Your task to perform on an android device: open sync settings in chrome Image 0: 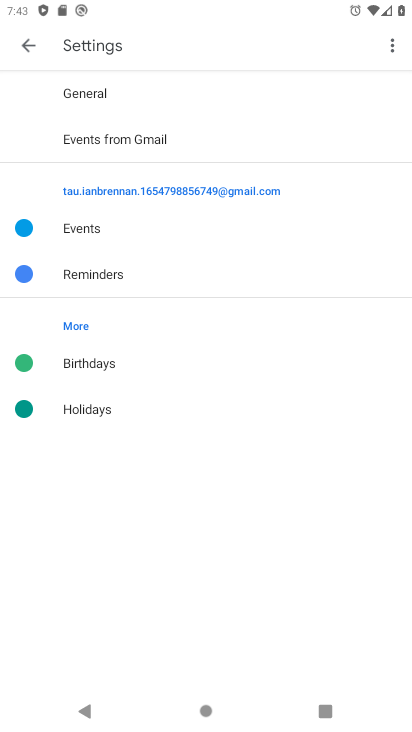
Step 0: press home button
Your task to perform on an android device: open sync settings in chrome Image 1: 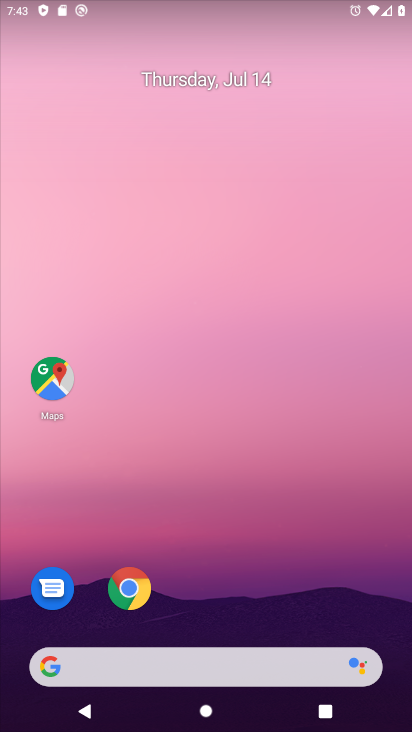
Step 1: click (91, 665)
Your task to perform on an android device: open sync settings in chrome Image 2: 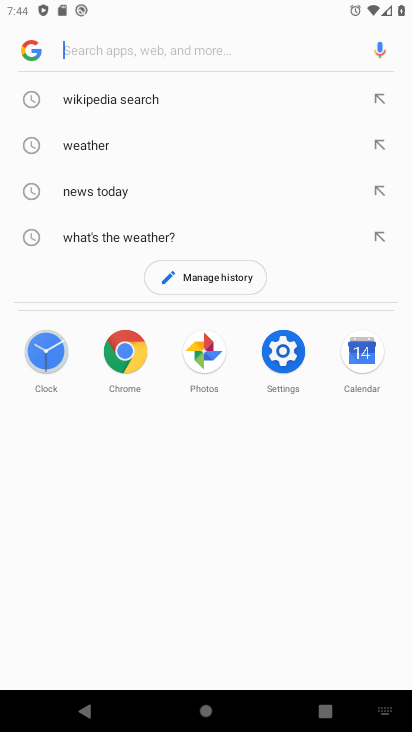
Step 2: click (131, 347)
Your task to perform on an android device: open sync settings in chrome Image 3: 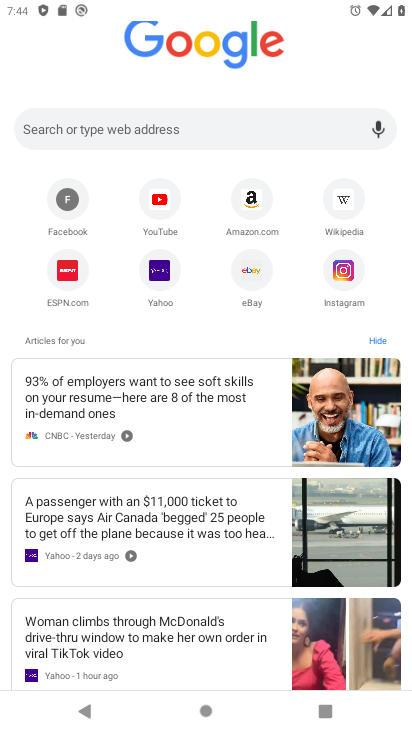
Step 3: click (396, 302)
Your task to perform on an android device: open sync settings in chrome Image 4: 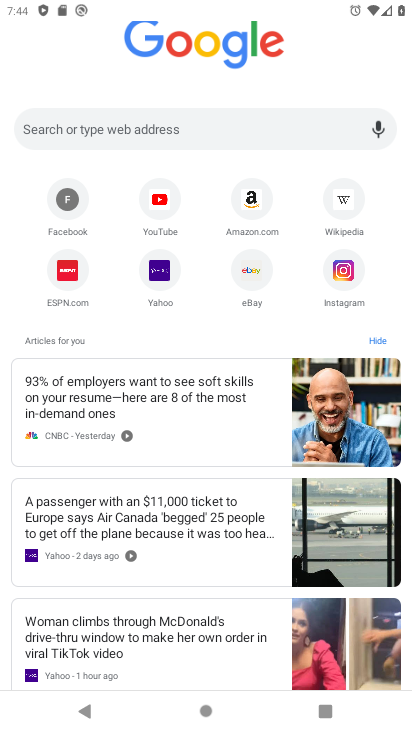
Step 4: click (76, 128)
Your task to perform on an android device: open sync settings in chrome Image 5: 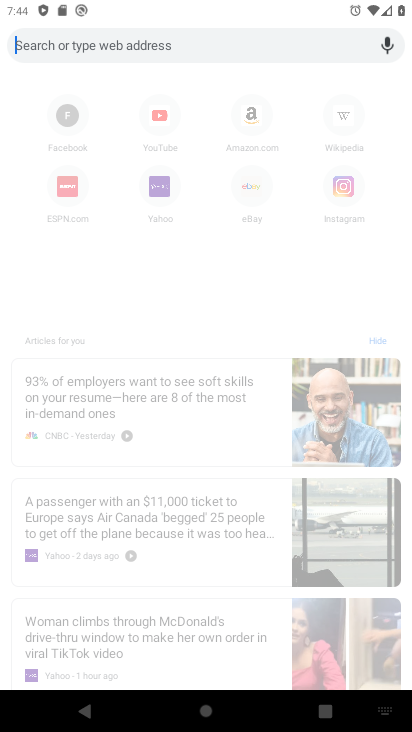
Step 5: click (342, 57)
Your task to perform on an android device: open sync settings in chrome Image 6: 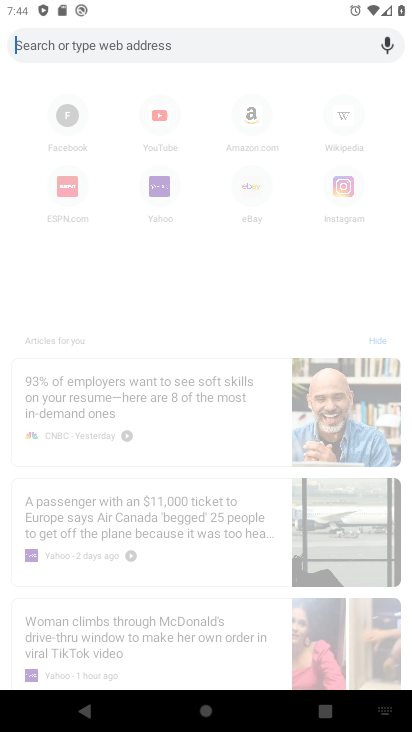
Step 6: click (356, 75)
Your task to perform on an android device: open sync settings in chrome Image 7: 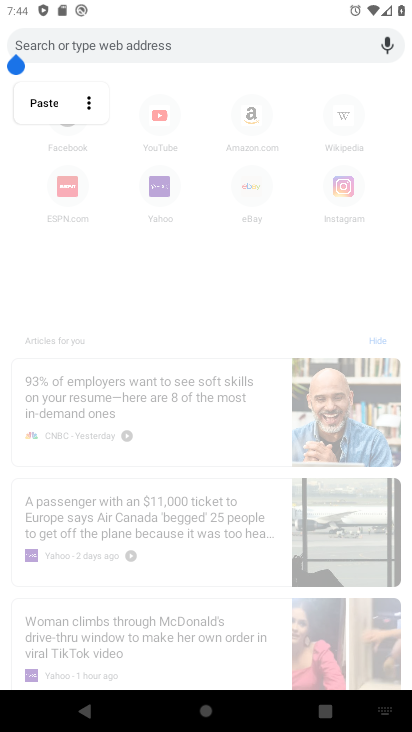
Step 7: click (356, 84)
Your task to perform on an android device: open sync settings in chrome Image 8: 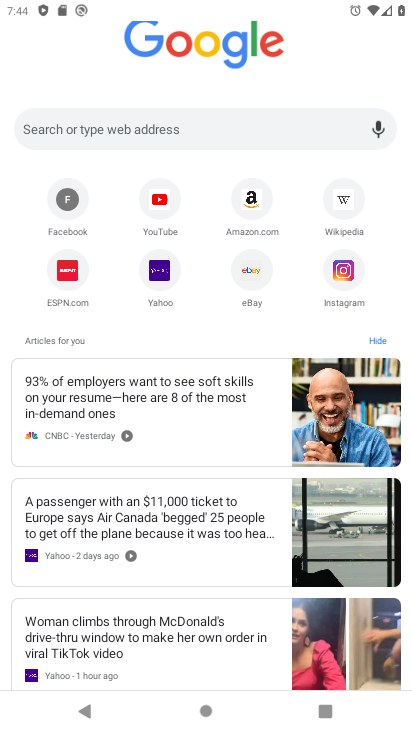
Step 8: task complete